Your task to perform on an android device: Open Youtube and go to the subscriptions tab Image 0: 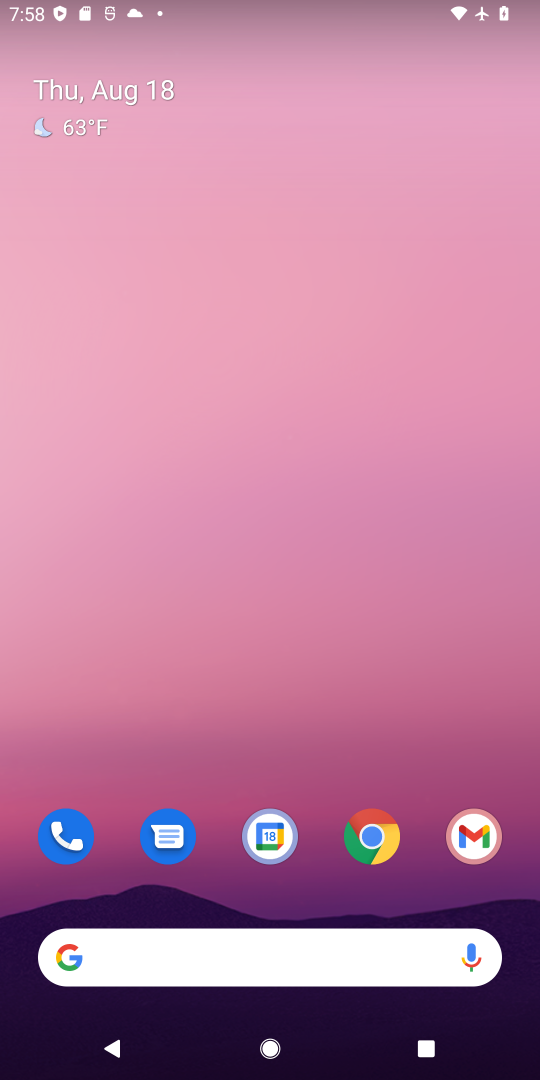
Step 0: drag from (323, 753) to (439, 89)
Your task to perform on an android device: Open Youtube and go to the subscriptions tab Image 1: 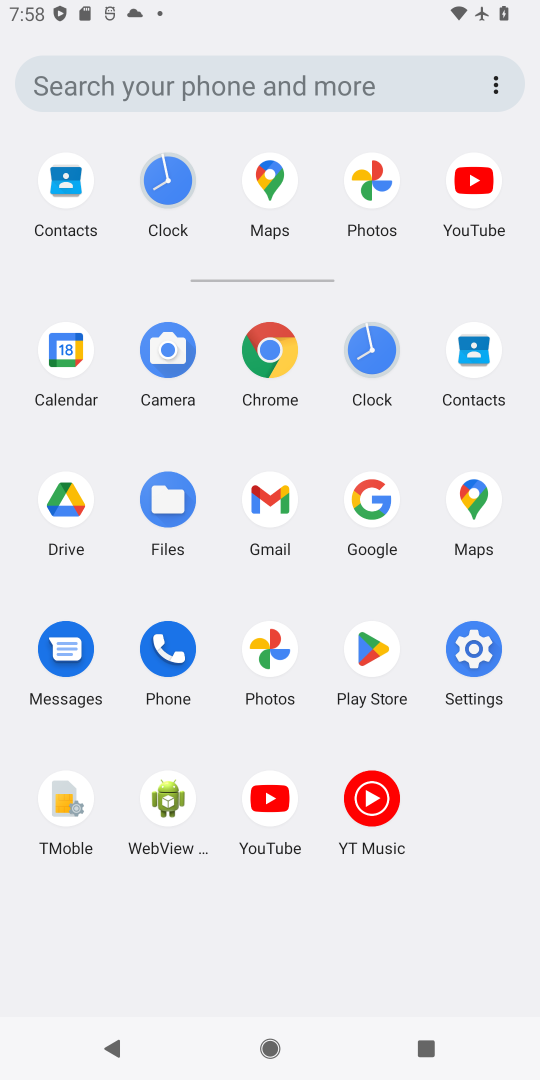
Step 1: click (267, 794)
Your task to perform on an android device: Open Youtube and go to the subscriptions tab Image 2: 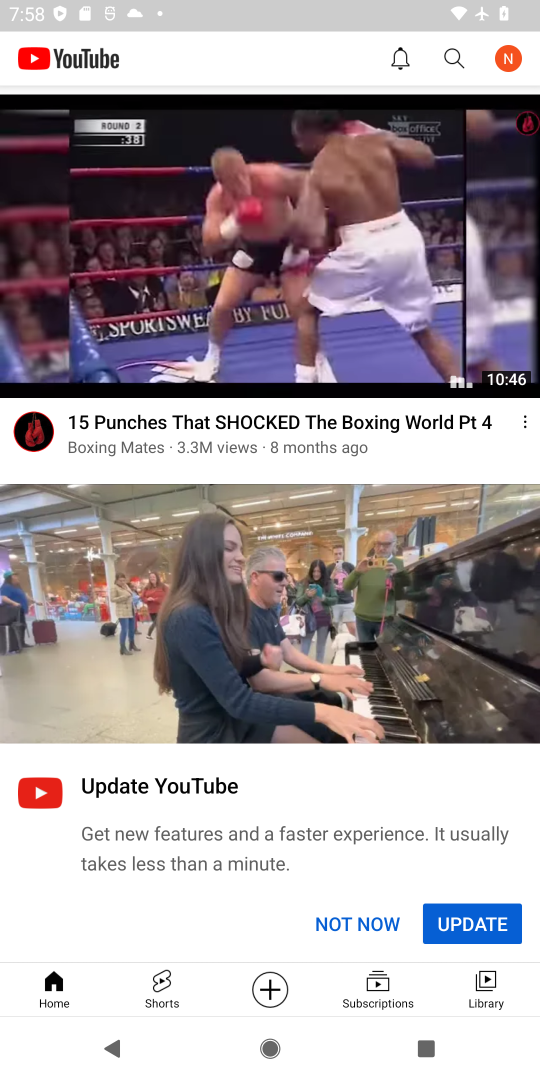
Step 2: click (384, 996)
Your task to perform on an android device: Open Youtube and go to the subscriptions tab Image 3: 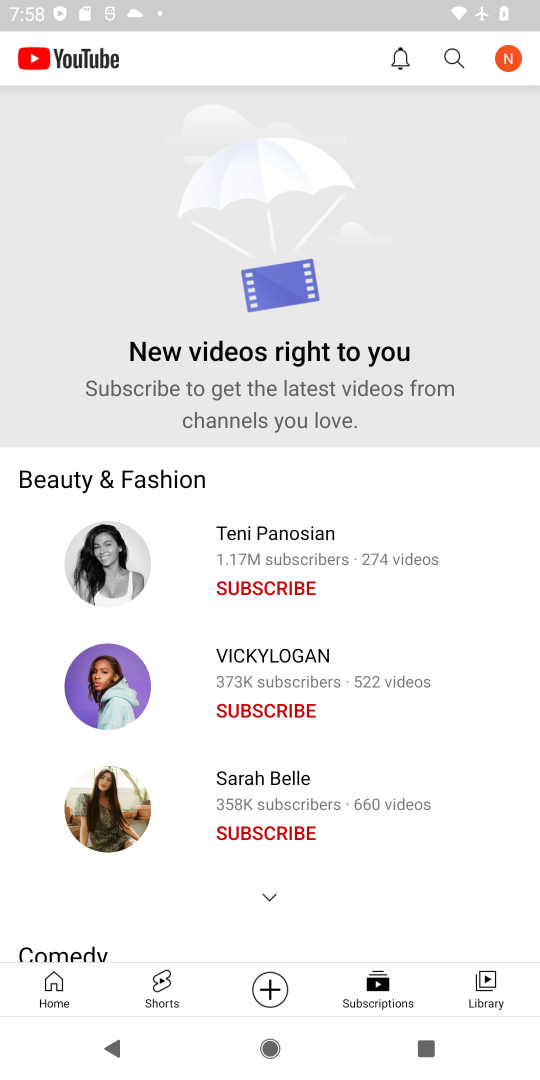
Step 3: task complete